Your task to perform on an android device: Turn off the flashlight Image 0: 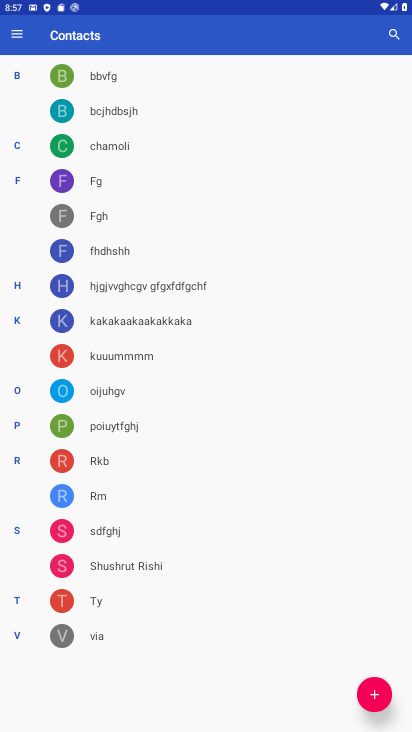
Step 0: press home button
Your task to perform on an android device: Turn off the flashlight Image 1: 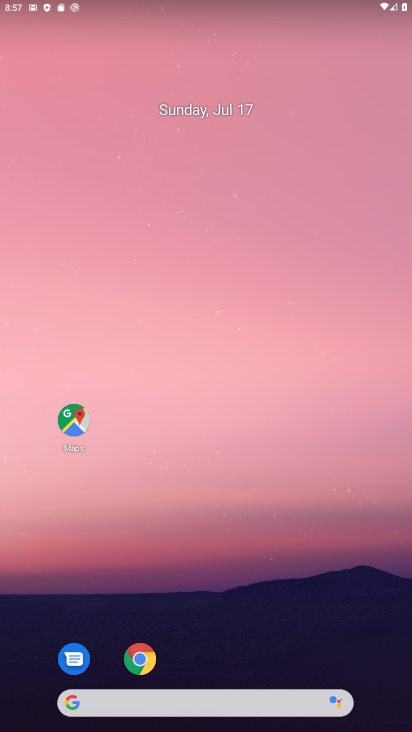
Step 1: drag from (196, 644) to (234, 29)
Your task to perform on an android device: Turn off the flashlight Image 2: 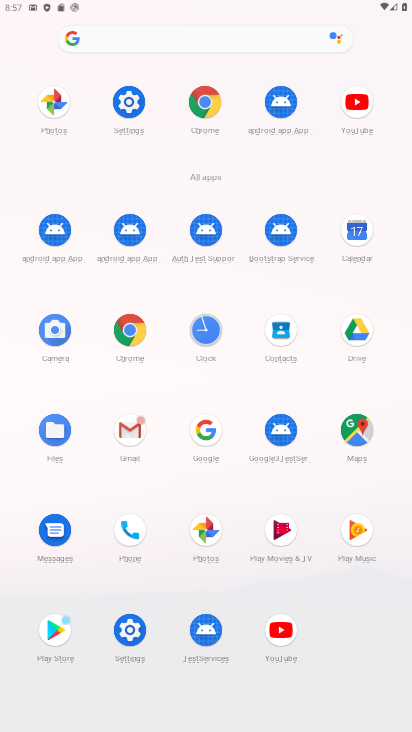
Step 2: click (131, 114)
Your task to perform on an android device: Turn off the flashlight Image 3: 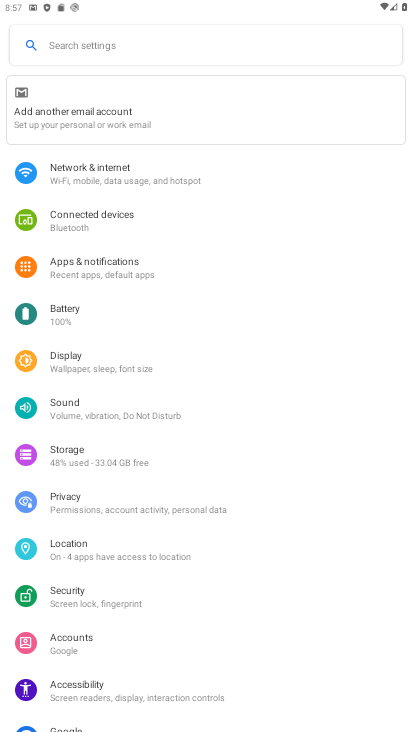
Step 3: task complete